Your task to perform on an android device: Open the phone app and click the voicemail tab. Image 0: 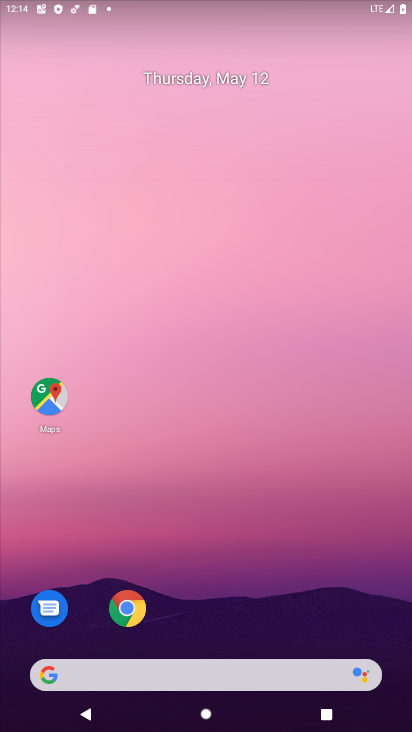
Step 0: drag from (199, 603) to (193, 3)
Your task to perform on an android device: Open the phone app and click the voicemail tab. Image 1: 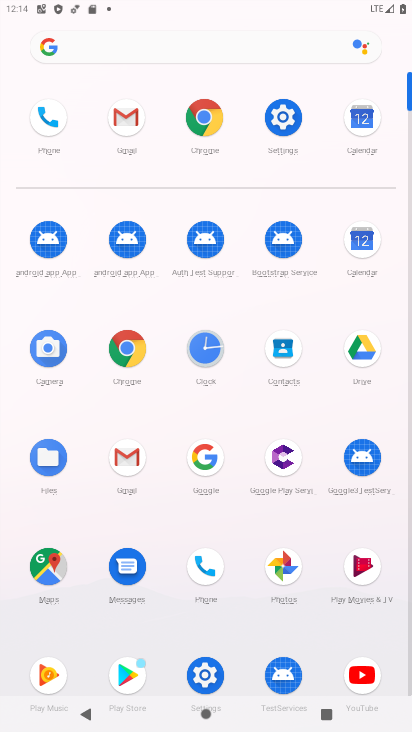
Step 1: click (202, 576)
Your task to perform on an android device: Open the phone app and click the voicemail tab. Image 2: 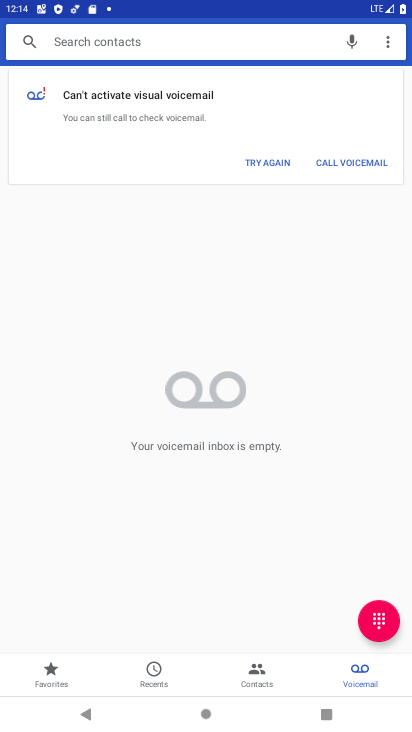
Step 2: click (366, 683)
Your task to perform on an android device: Open the phone app and click the voicemail tab. Image 3: 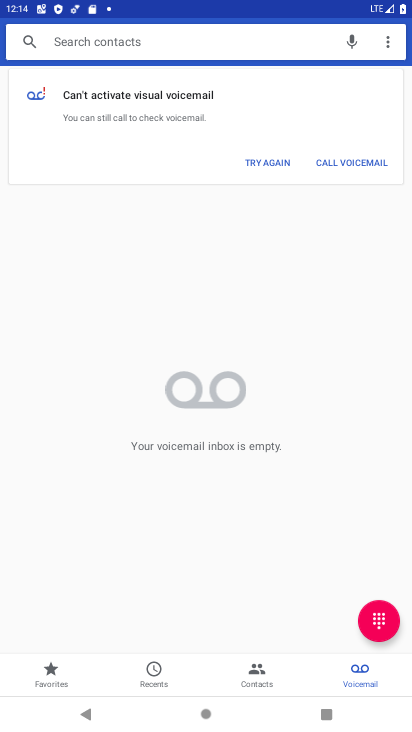
Step 3: task complete